Your task to perform on an android device: Open settings Image 0: 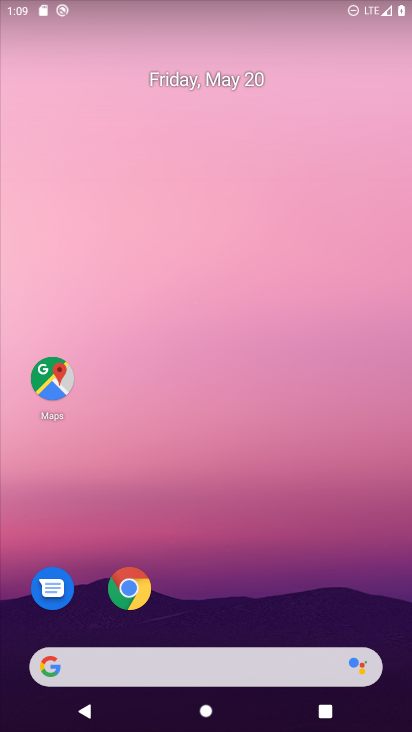
Step 0: drag from (375, 613) to (313, 60)
Your task to perform on an android device: Open settings Image 1: 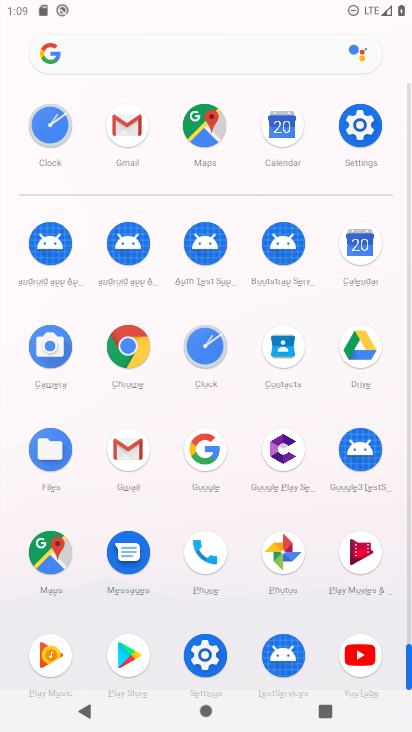
Step 1: click (203, 658)
Your task to perform on an android device: Open settings Image 2: 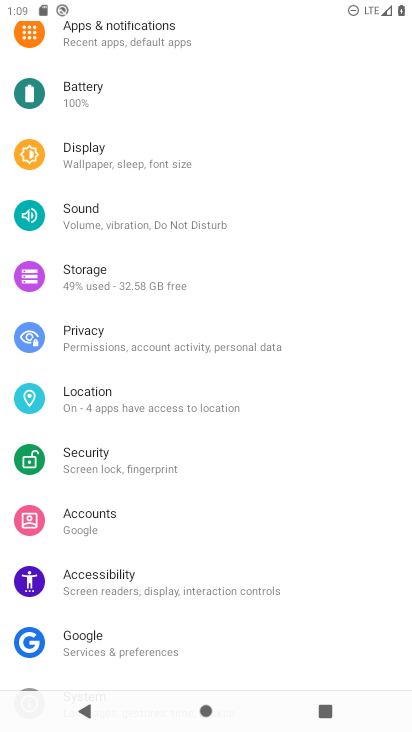
Step 2: task complete